Your task to perform on an android device: set an alarm Image 0: 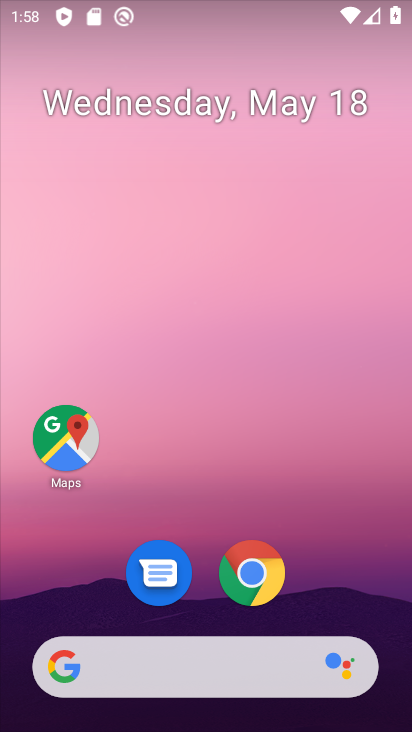
Step 0: drag from (308, 594) to (334, 236)
Your task to perform on an android device: set an alarm Image 1: 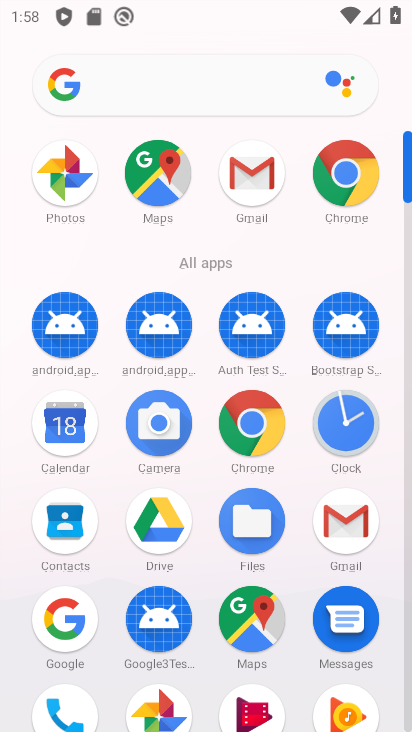
Step 1: click (334, 433)
Your task to perform on an android device: set an alarm Image 2: 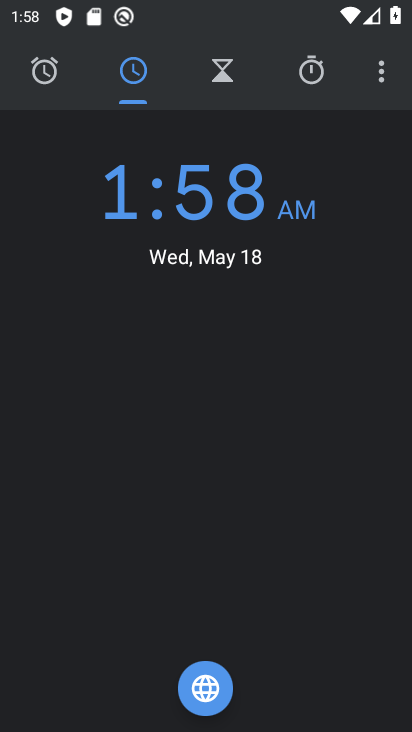
Step 2: click (51, 74)
Your task to perform on an android device: set an alarm Image 3: 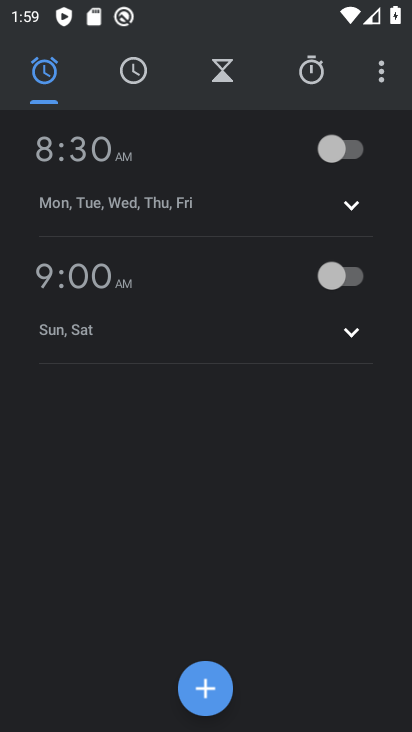
Step 3: click (218, 687)
Your task to perform on an android device: set an alarm Image 4: 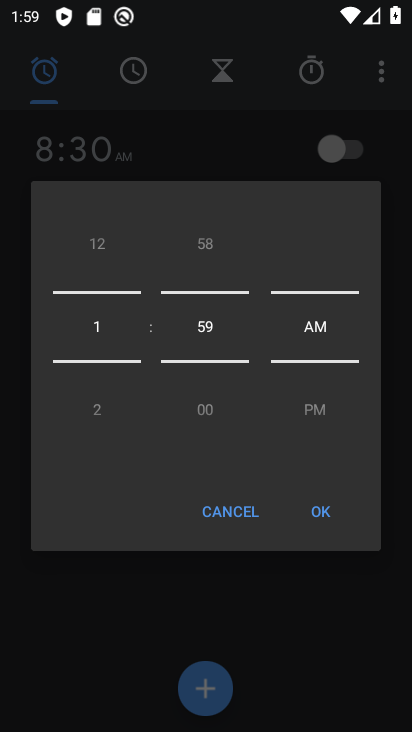
Step 4: click (315, 513)
Your task to perform on an android device: set an alarm Image 5: 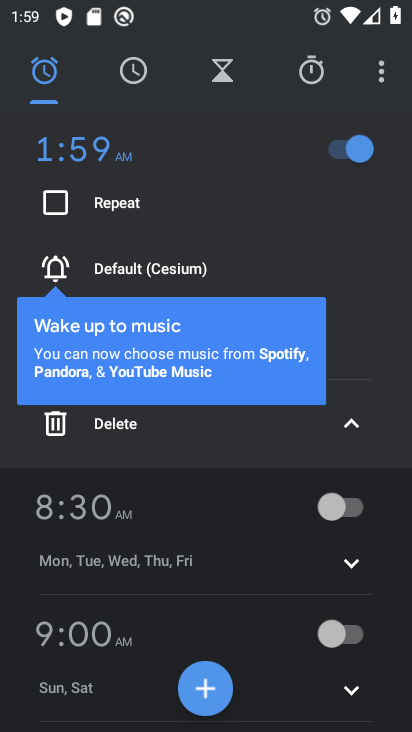
Step 5: task complete